Your task to perform on an android device: Open Google Chrome and click the shortcut for Amazon.com Image 0: 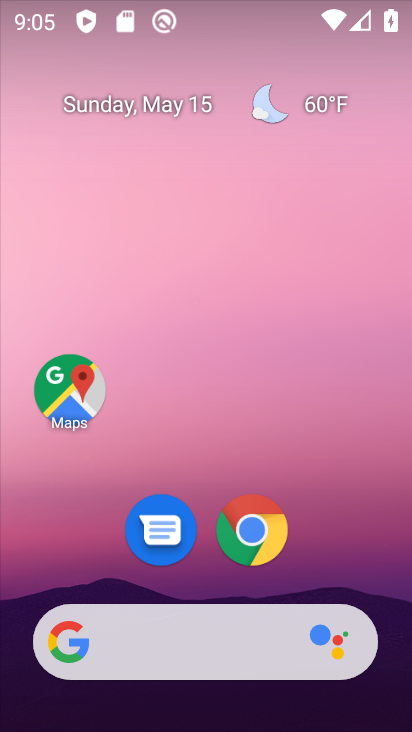
Step 0: drag from (378, 560) to (355, 135)
Your task to perform on an android device: Open Google Chrome and click the shortcut for Amazon.com Image 1: 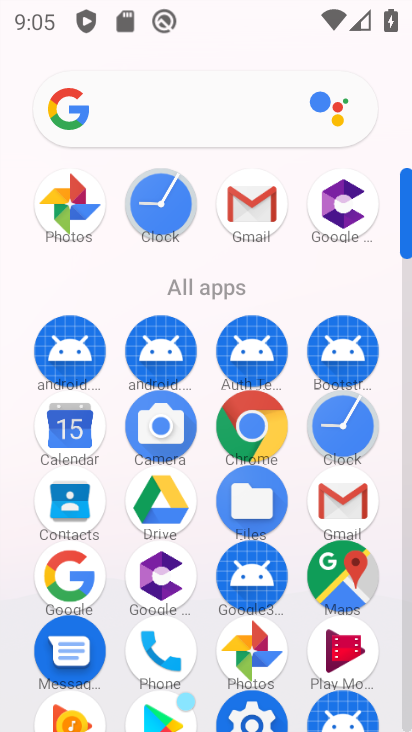
Step 1: click (234, 416)
Your task to perform on an android device: Open Google Chrome and click the shortcut for Amazon.com Image 2: 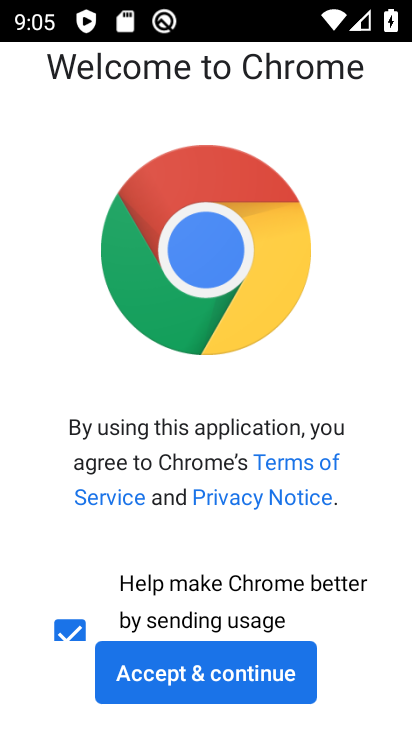
Step 2: click (273, 676)
Your task to perform on an android device: Open Google Chrome and click the shortcut for Amazon.com Image 3: 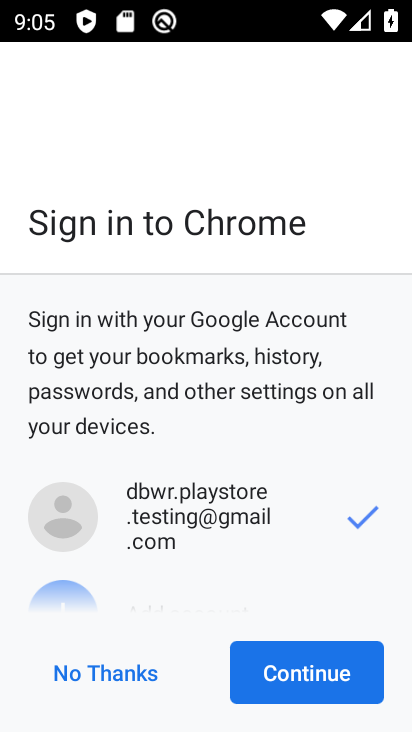
Step 3: click (343, 674)
Your task to perform on an android device: Open Google Chrome and click the shortcut for Amazon.com Image 4: 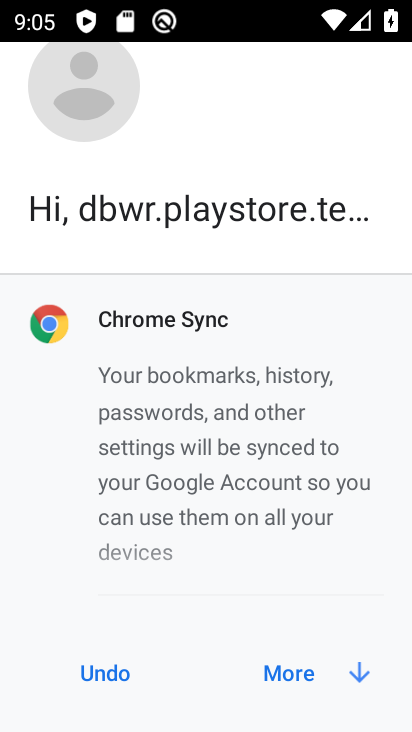
Step 4: click (305, 668)
Your task to perform on an android device: Open Google Chrome and click the shortcut for Amazon.com Image 5: 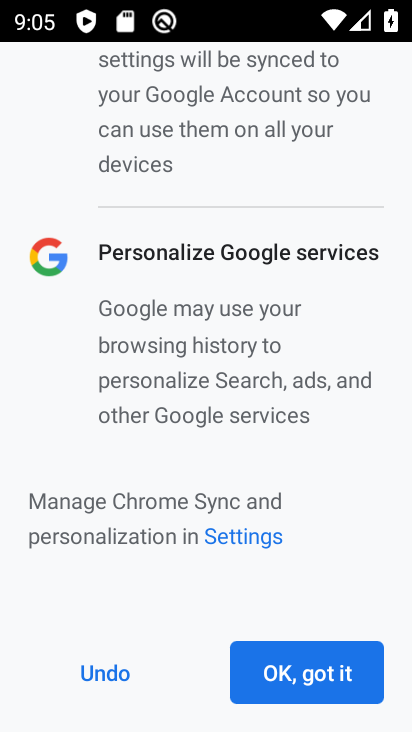
Step 5: click (345, 666)
Your task to perform on an android device: Open Google Chrome and click the shortcut for Amazon.com Image 6: 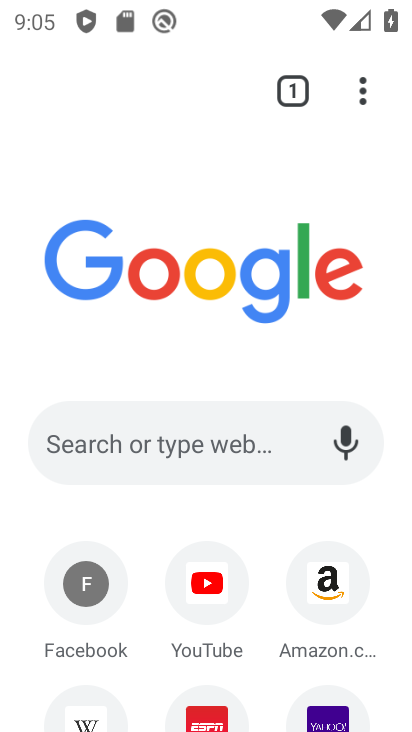
Step 6: click (334, 593)
Your task to perform on an android device: Open Google Chrome and click the shortcut for Amazon.com Image 7: 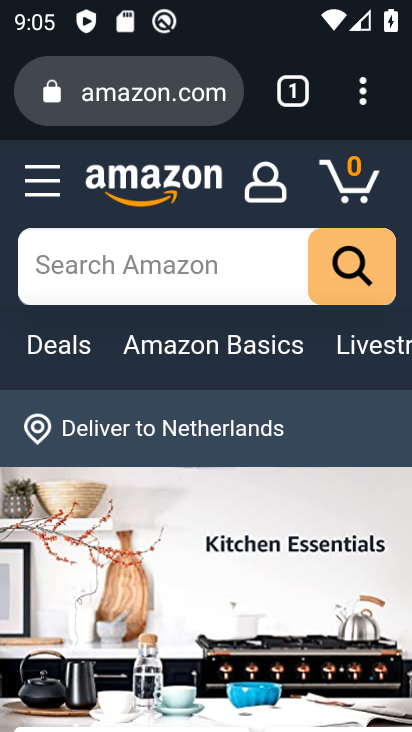
Step 7: task complete